Your task to perform on an android device: toggle notification dots Image 0: 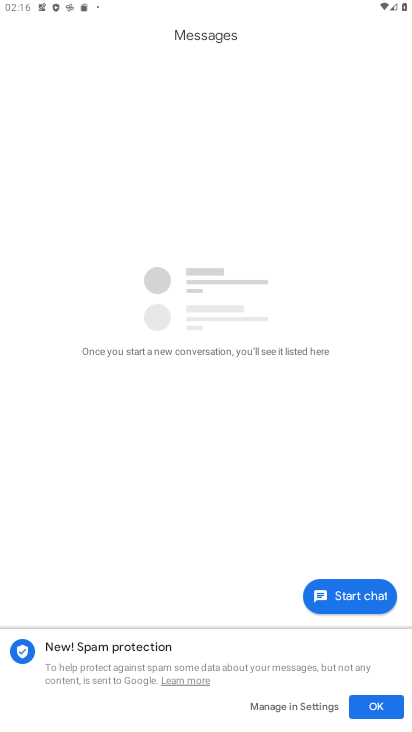
Step 0: press home button
Your task to perform on an android device: toggle notification dots Image 1: 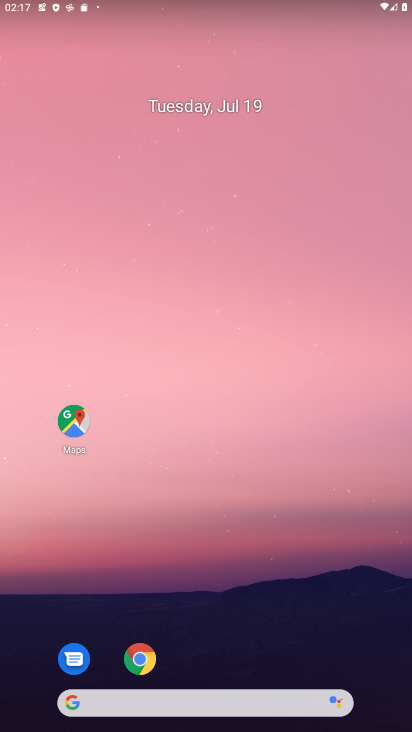
Step 1: drag from (334, 2) to (310, 668)
Your task to perform on an android device: toggle notification dots Image 2: 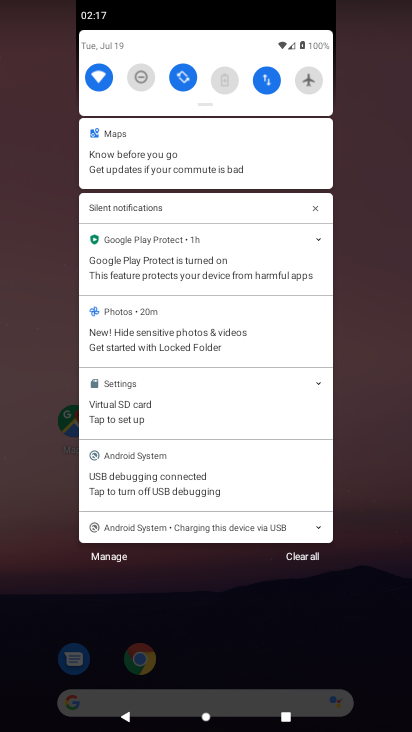
Step 2: drag from (301, 659) to (274, 16)
Your task to perform on an android device: toggle notification dots Image 3: 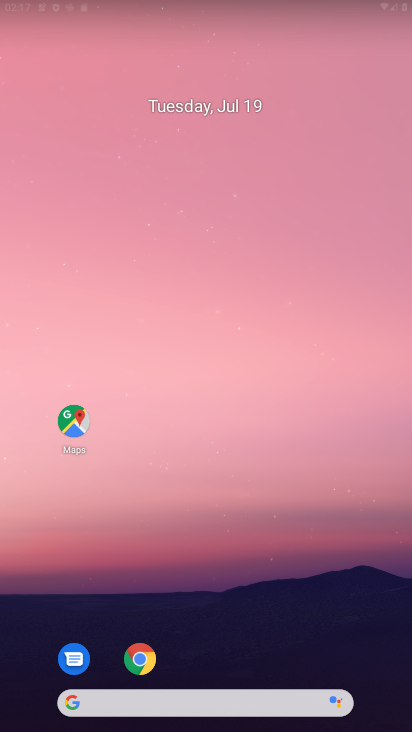
Step 3: drag from (246, 526) to (242, 203)
Your task to perform on an android device: toggle notification dots Image 4: 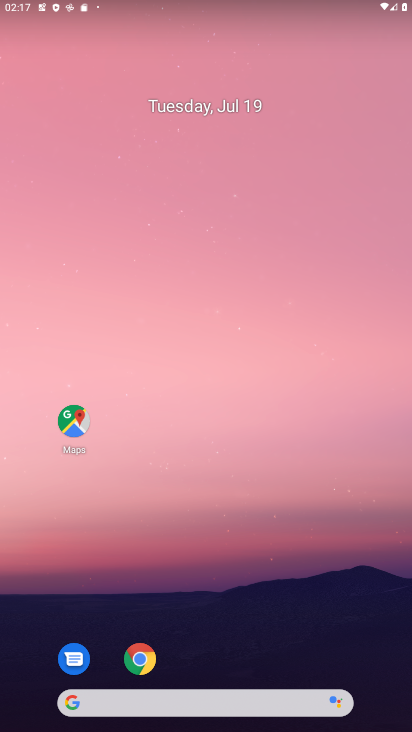
Step 4: drag from (251, 635) to (240, 3)
Your task to perform on an android device: toggle notification dots Image 5: 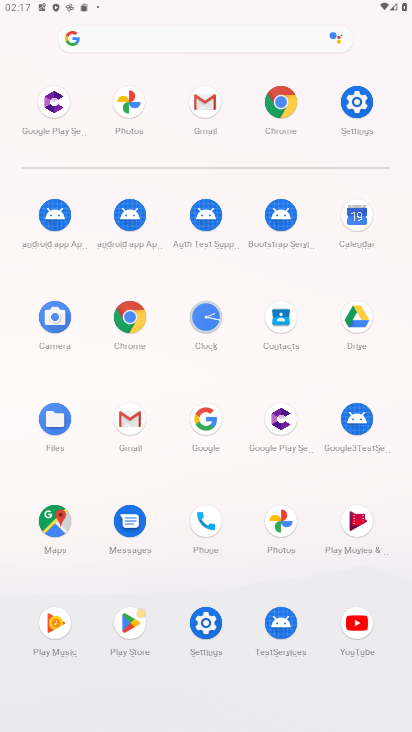
Step 5: click (363, 98)
Your task to perform on an android device: toggle notification dots Image 6: 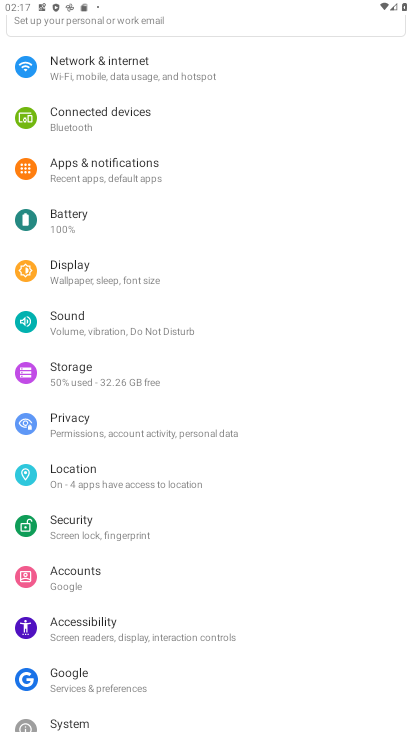
Step 6: click (38, 168)
Your task to perform on an android device: toggle notification dots Image 7: 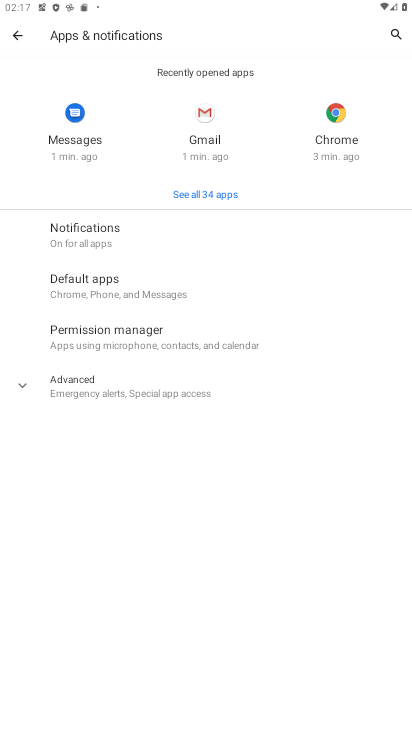
Step 7: click (66, 232)
Your task to perform on an android device: toggle notification dots Image 8: 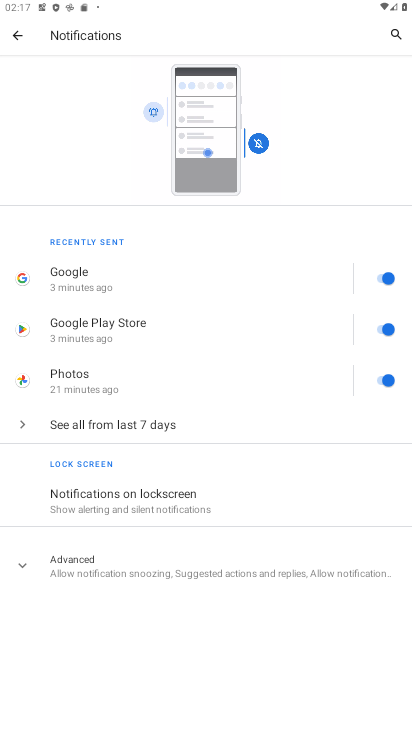
Step 8: click (129, 571)
Your task to perform on an android device: toggle notification dots Image 9: 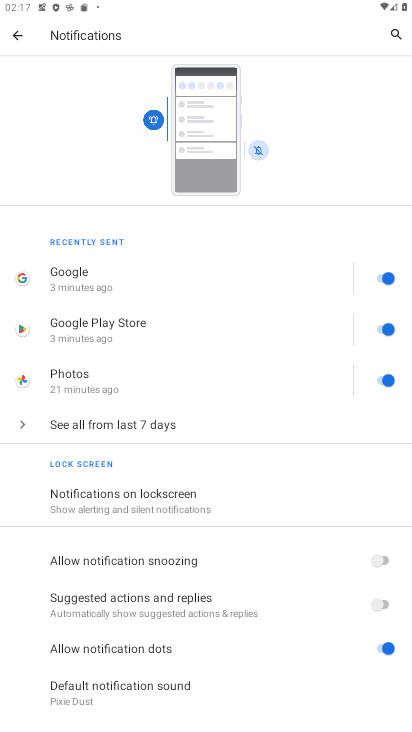
Step 9: click (137, 650)
Your task to perform on an android device: toggle notification dots Image 10: 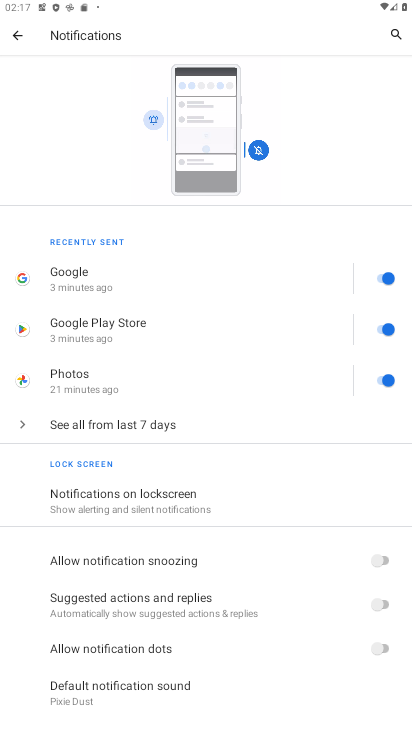
Step 10: task complete